Your task to perform on an android device: Go to privacy settings Image 0: 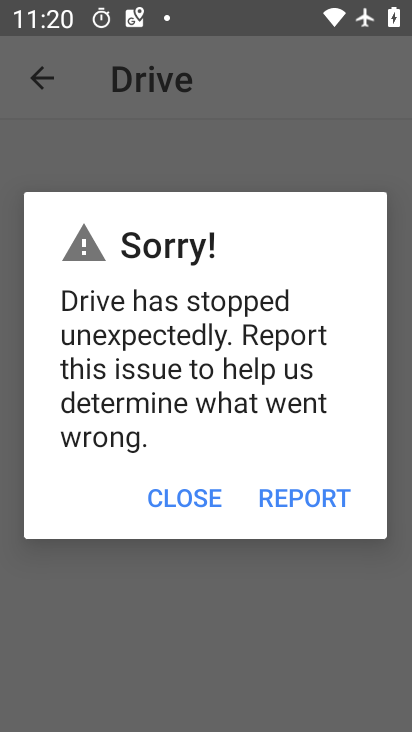
Step 0: click (194, 498)
Your task to perform on an android device: Go to privacy settings Image 1: 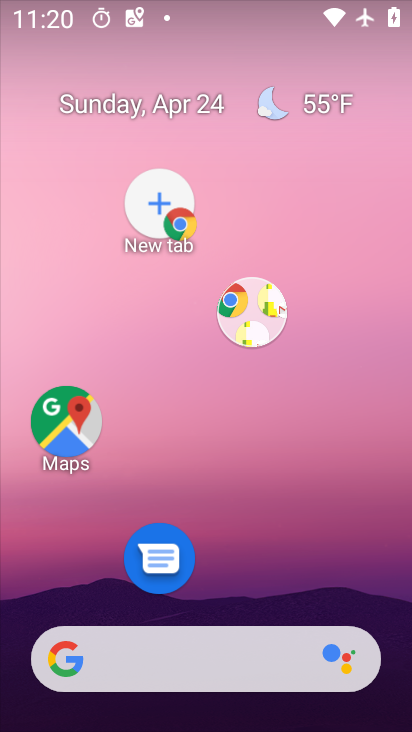
Step 1: drag from (311, 563) to (261, 205)
Your task to perform on an android device: Go to privacy settings Image 2: 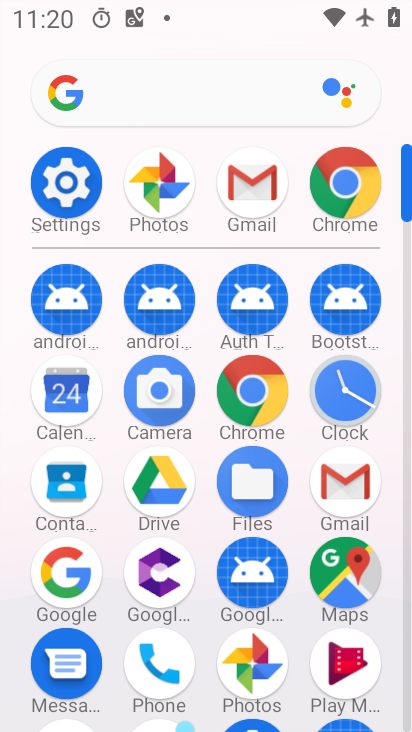
Step 2: click (344, 181)
Your task to perform on an android device: Go to privacy settings Image 3: 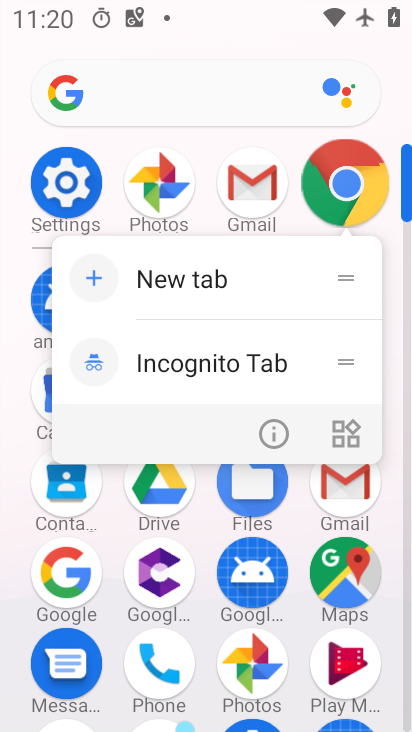
Step 3: click (349, 184)
Your task to perform on an android device: Go to privacy settings Image 4: 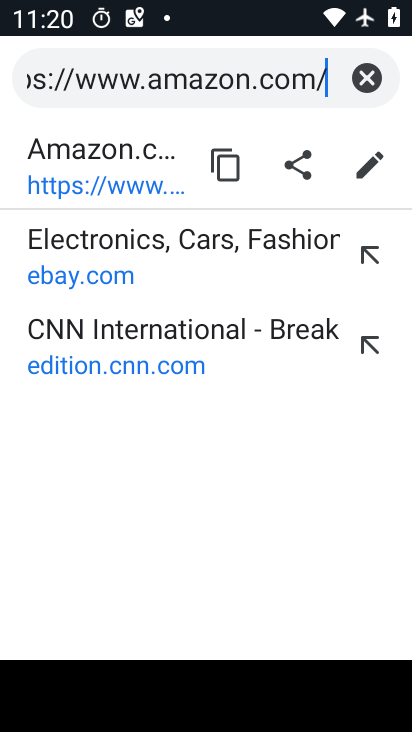
Step 4: press back button
Your task to perform on an android device: Go to privacy settings Image 5: 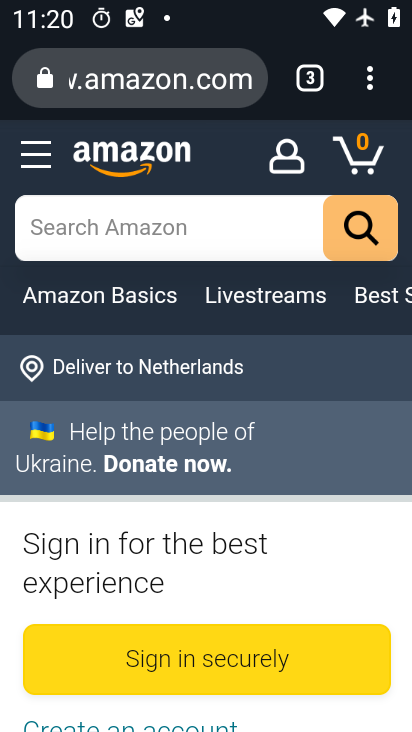
Step 5: press home button
Your task to perform on an android device: Go to privacy settings Image 6: 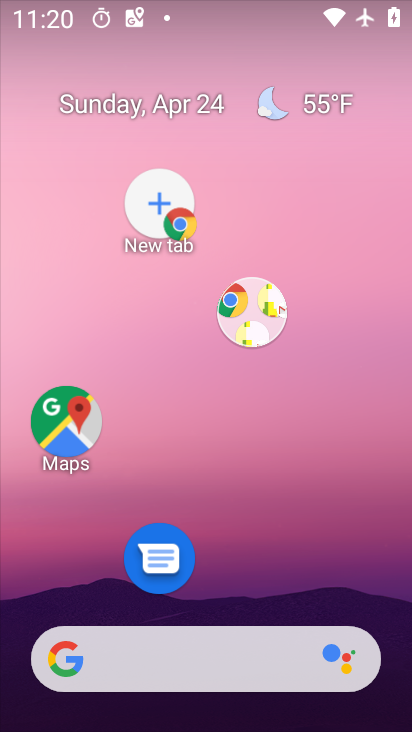
Step 6: drag from (284, 686) to (130, 46)
Your task to perform on an android device: Go to privacy settings Image 7: 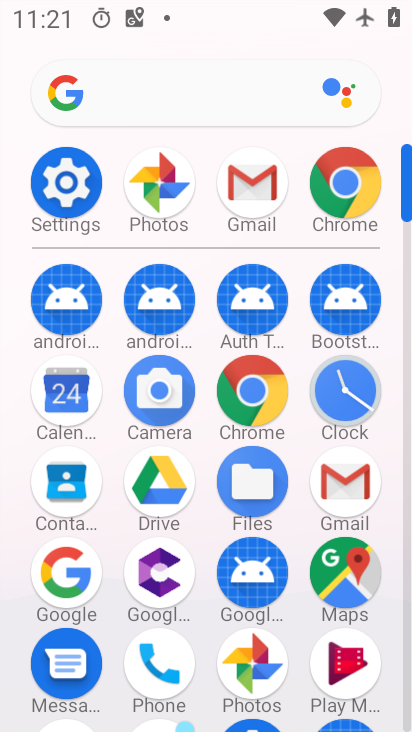
Step 7: click (56, 182)
Your task to perform on an android device: Go to privacy settings Image 8: 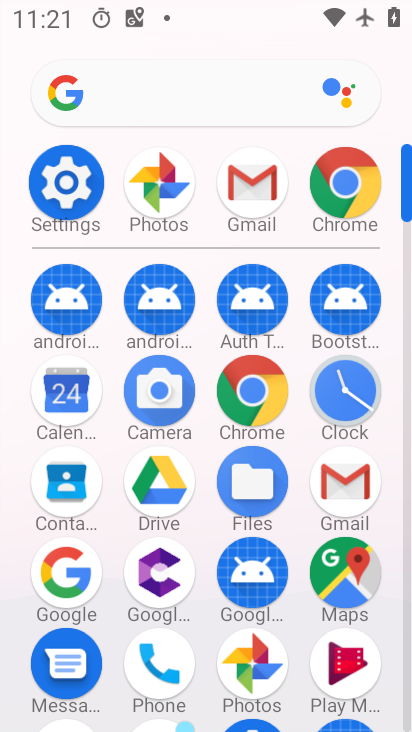
Step 8: click (57, 181)
Your task to perform on an android device: Go to privacy settings Image 9: 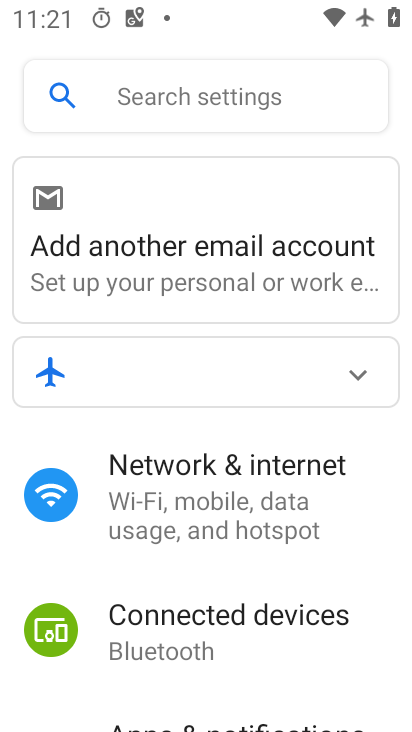
Step 9: task complete